Your task to perform on an android device: turn off picture-in-picture Image 0: 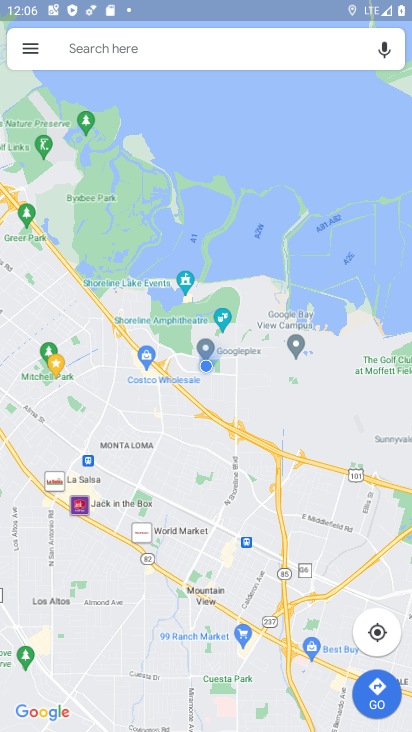
Step 0: press home button
Your task to perform on an android device: turn off picture-in-picture Image 1: 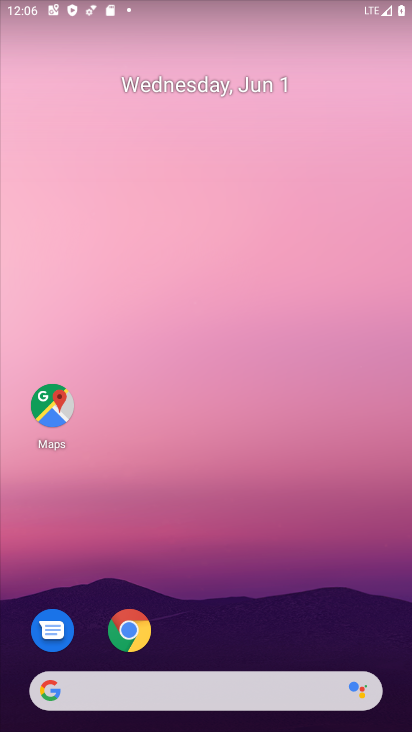
Step 1: click (129, 637)
Your task to perform on an android device: turn off picture-in-picture Image 2: 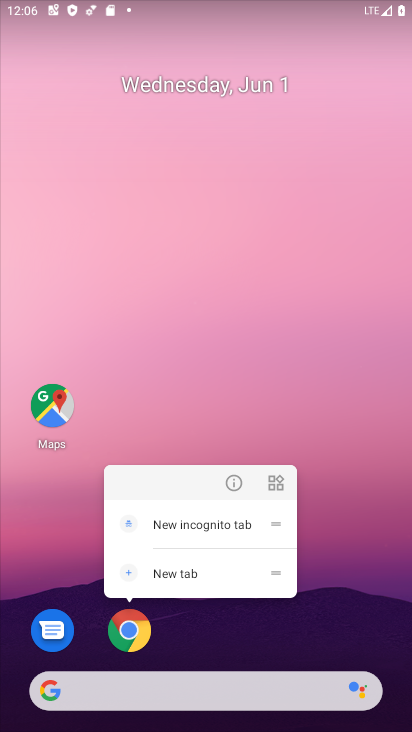
Step 2: click (232, 479)
Your task to perform on an android device: turn off picture-in-picture Image 3: 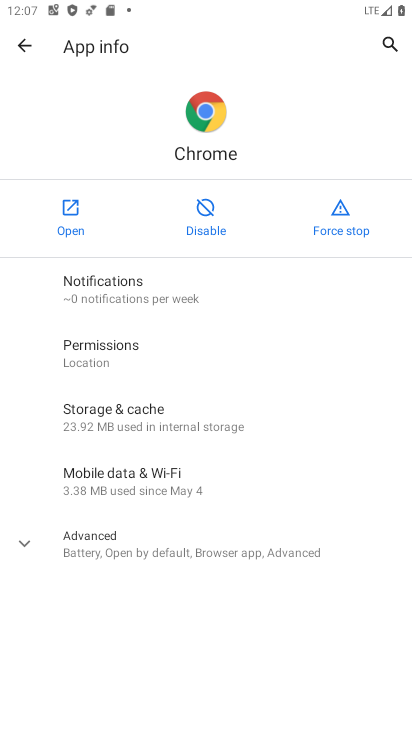
Step 3: click (24, 548)
Your task to perform on an android device: turn off picture-in-picture Image 4: 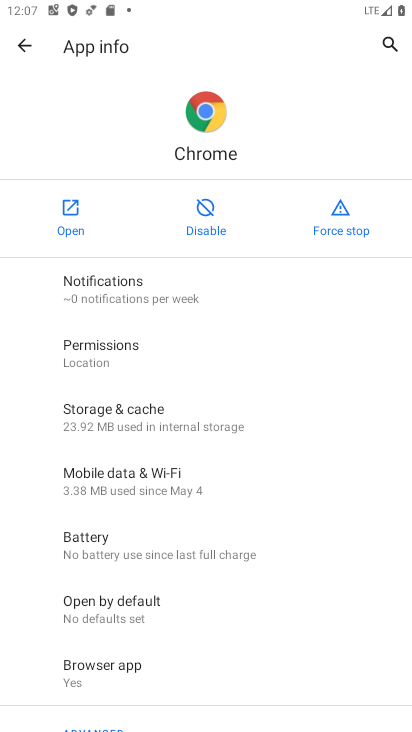
Step 4: drag from (384, 682) to (369, 446)
Your task to perform on an android device: turn off picture-in-picture Image 5: 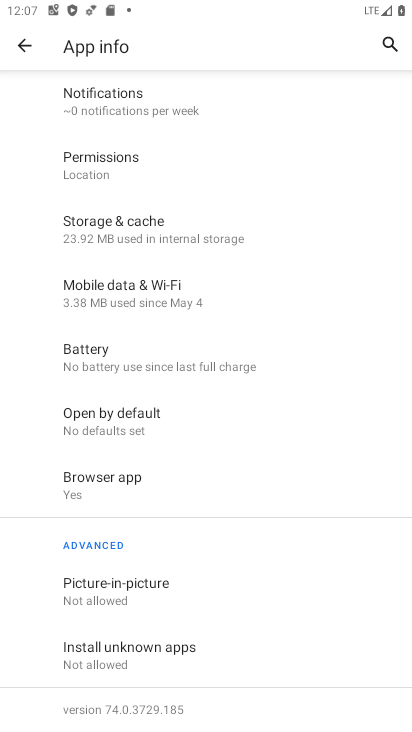
Step 5: click (159, 593)
Your task to perform on an android device: turn off picture-in-picture Image 6: 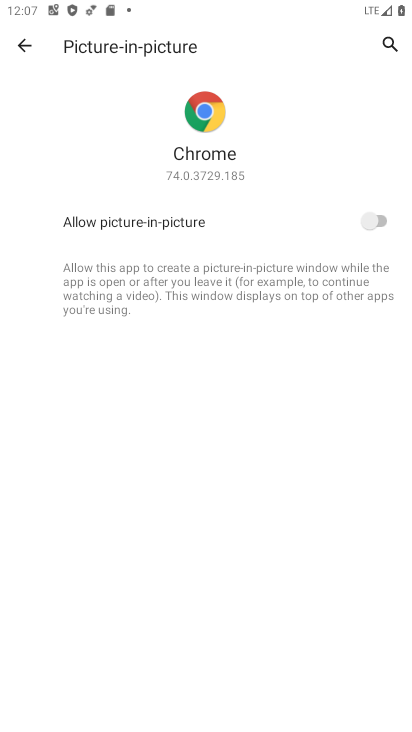
Step 6: task complete